Your task to perform on an android device: Go to ESPN.com Image 0: 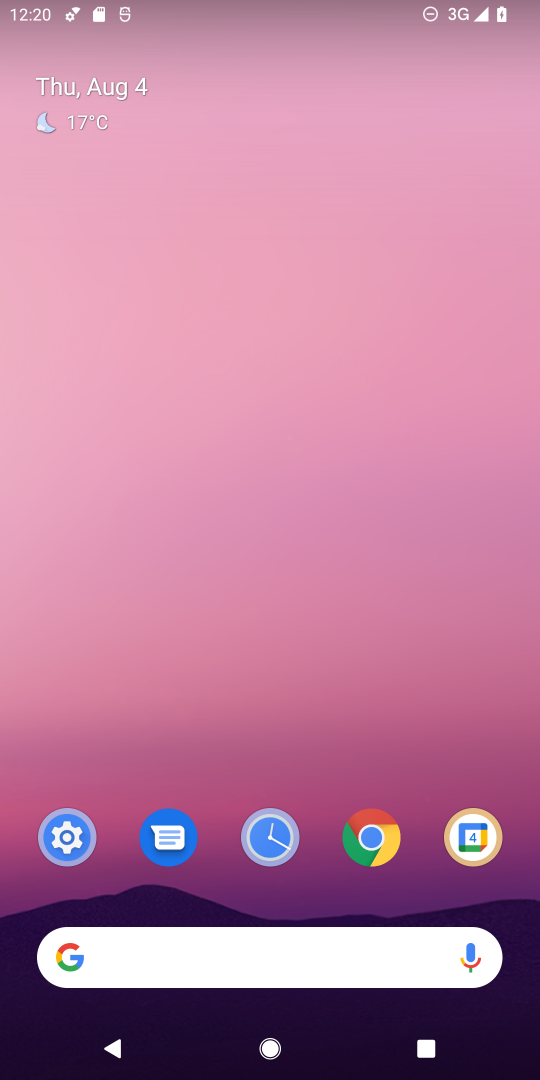
Step 0: drag from (450, 869) to (222, 109)
Your task to perform on an android device: Go to ESPN.com Image 1: 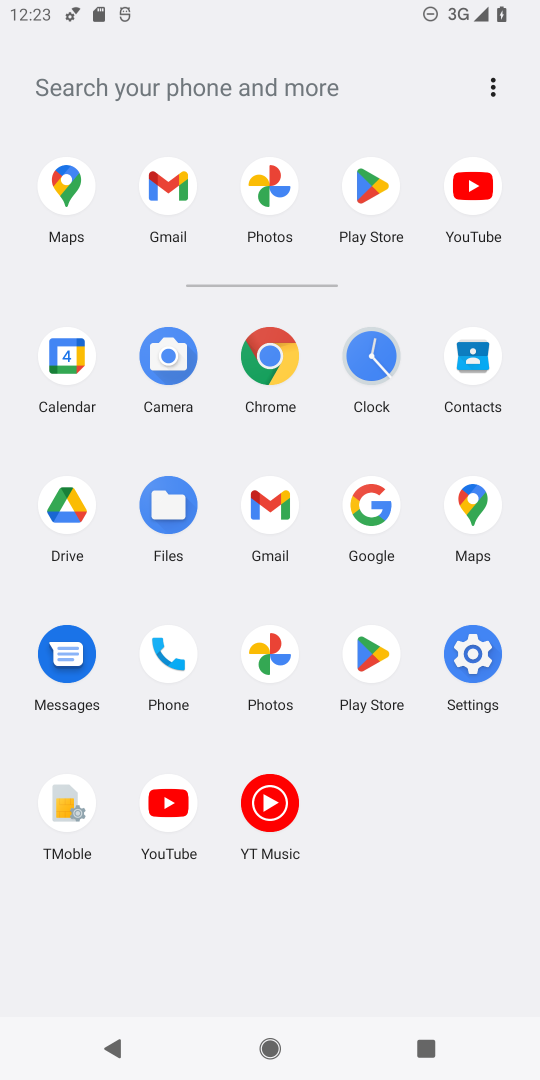
Step 1: click (366, 502)
Your task to perform on an android device: Go to ESPN.com Image 2: 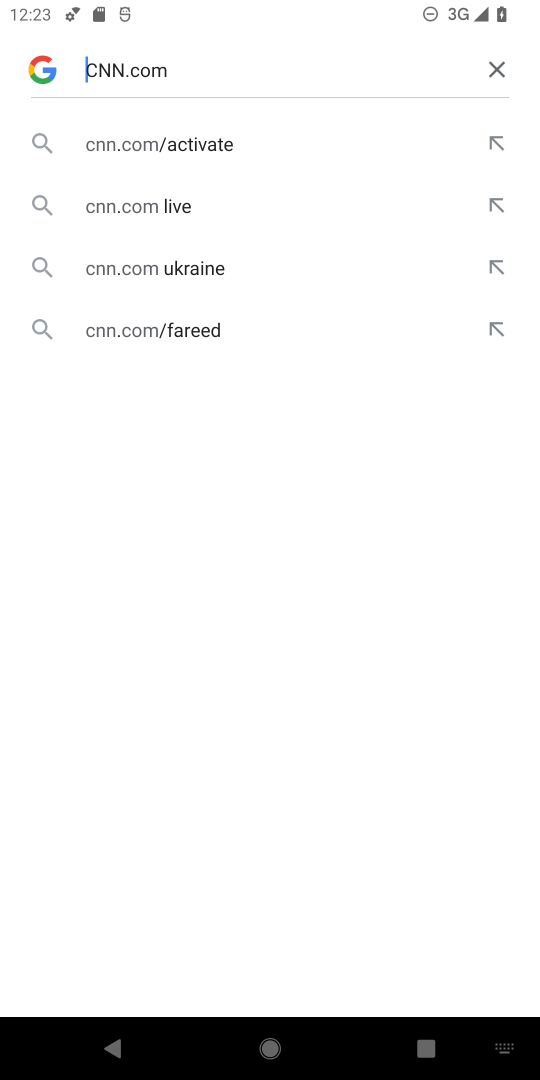
Step 2: click (494, 60)
Your task to perform on an android device: Go to ESPN.com Image 3: 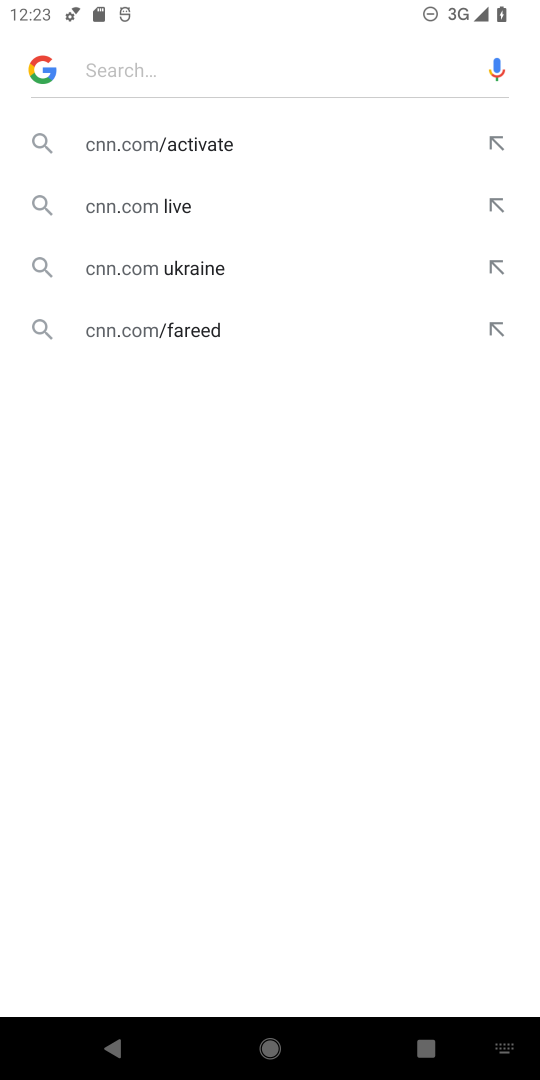
Step 3: type "ESPN.com"
Your task to perform on an android device: Go to ESPN.com Image 4: 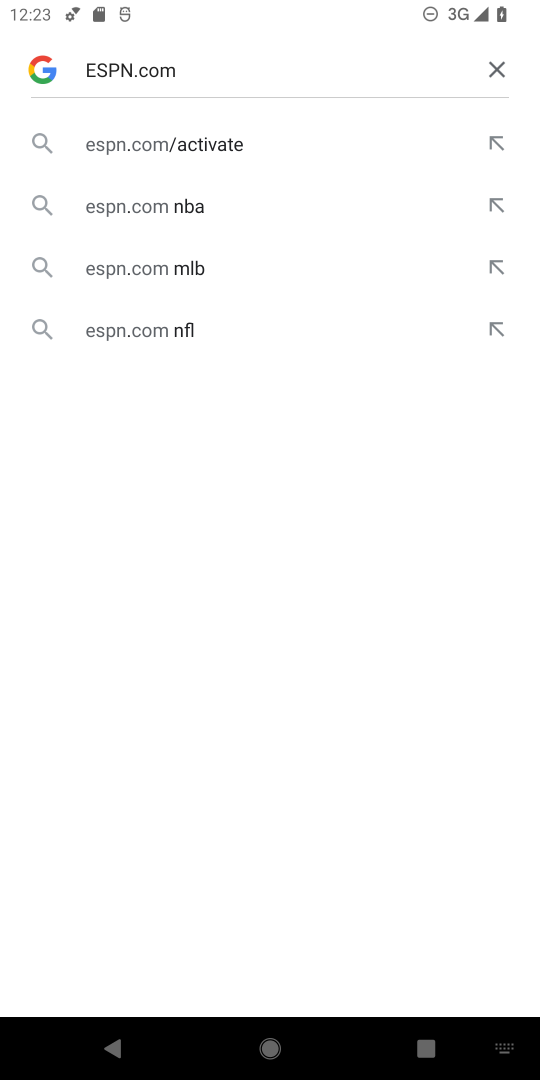
Step 4: click (170, 144)
Your task to perform on an android device: Go to ESPN.com Image 5: 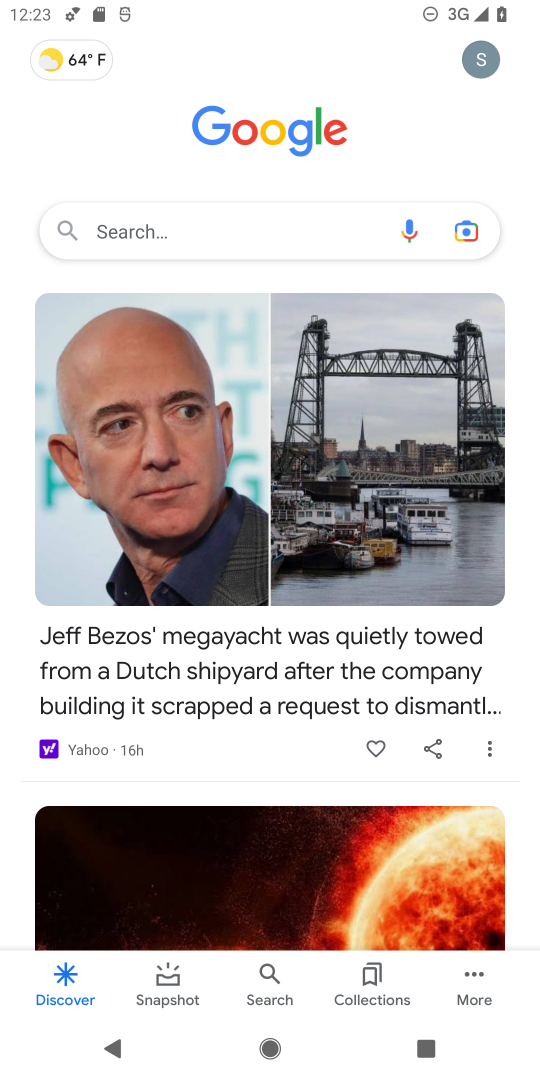
Step 5: task complete